Your task to perform on an android device: all mails in gmail Image 0: 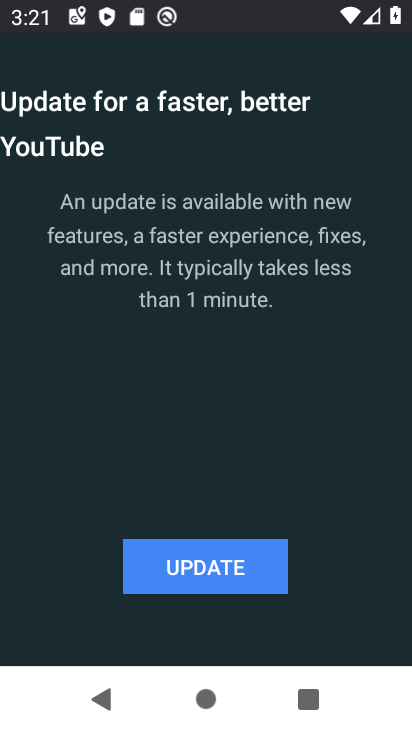
Step 0: press home button
Your task to perform on an android device: all mails in gmail Image 1: 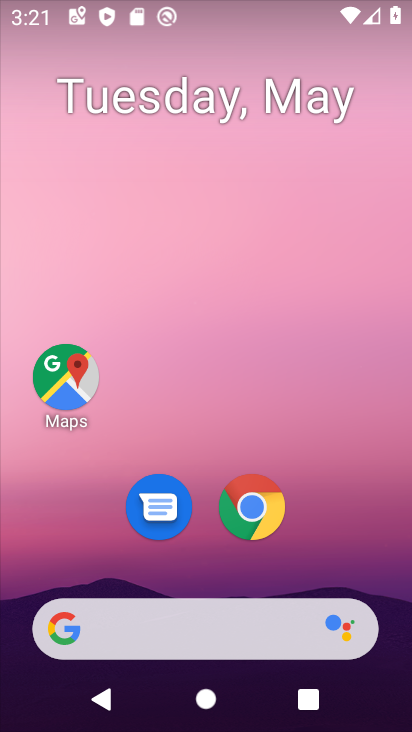
Step 1: drag from (220, 573) to (263, 0)
Your task to perform on an android device: all mails in gmail Image 2: 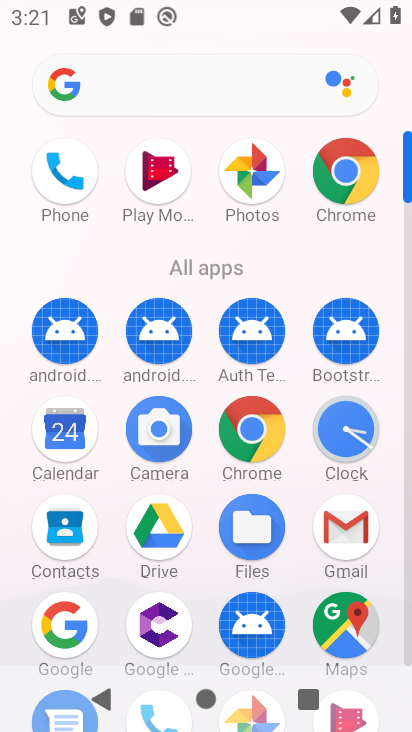
Step 2: click (340, 542)
Your task to perform on an android device: all mails in gmail Image 3: 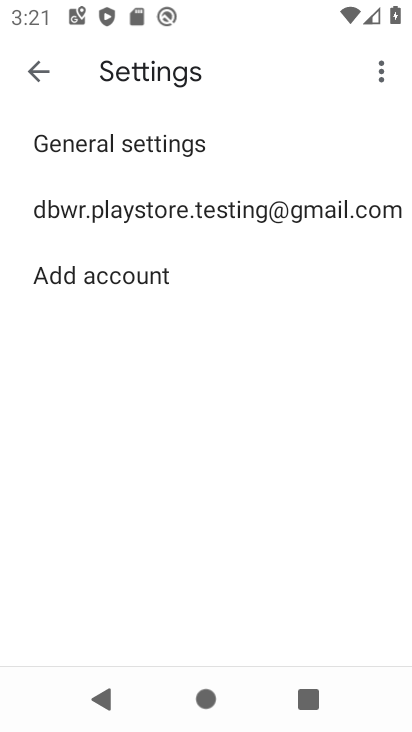
Step 3: click (14, 69)
Your task to perform on an android device: all mails in gmail Image 4: 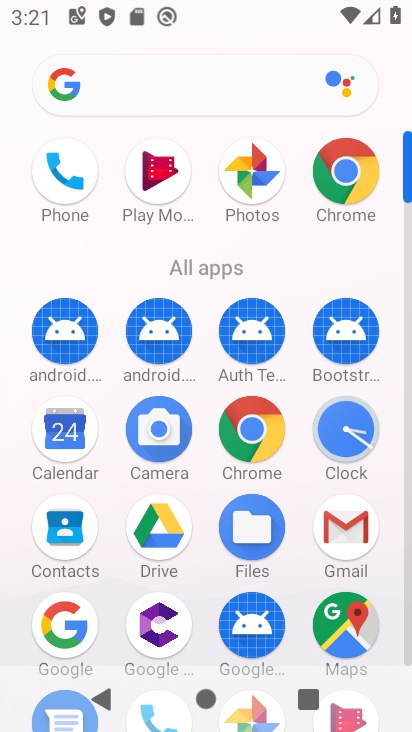
Step 4: click (346, 543)
Your task to perform on an android device: all mails in gmail Image 5: 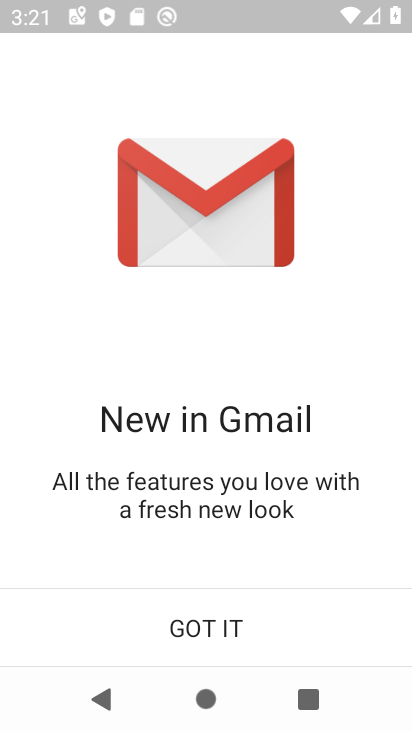
Step 5: click (204, 634)
Your task to perform on an android device: all mails in gmail Image 6: 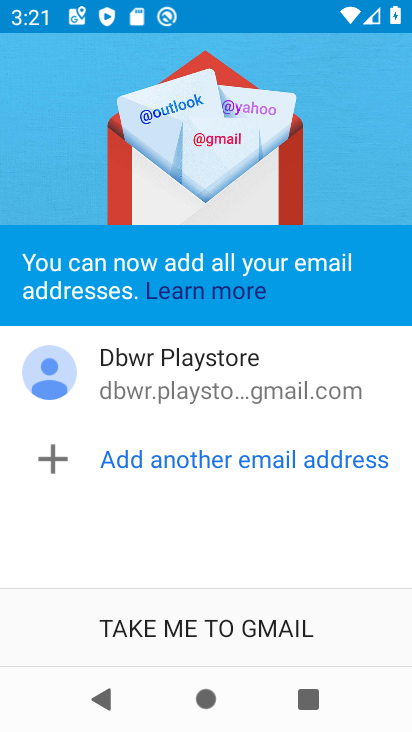
Step 6: click (206, 630)
Your task to perform on an android device: all mails in gmail Image 7: 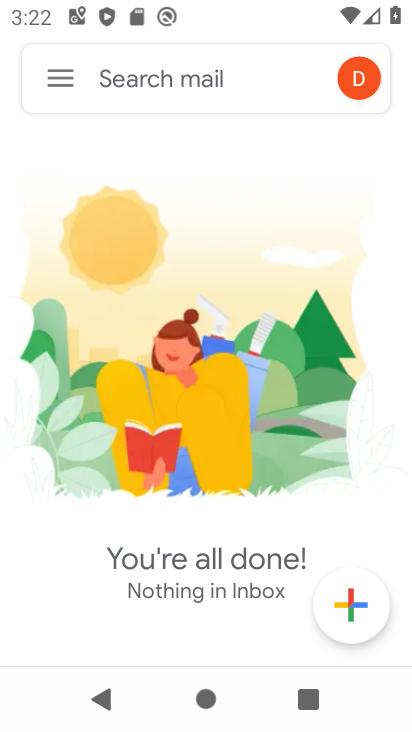
Step 7: click (69, 77)
Your task to perform on an android device: all mails in gmail Image 8: 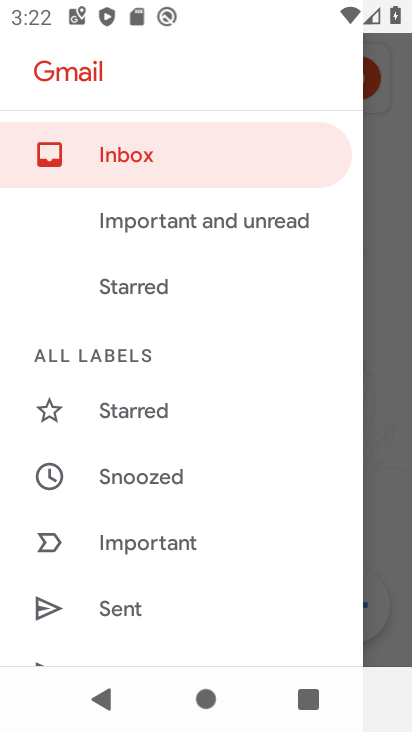
Step 8: drag from (191, 560) to (197, 250)
Your task to perform on an android device: all mails in gmail Image 9: 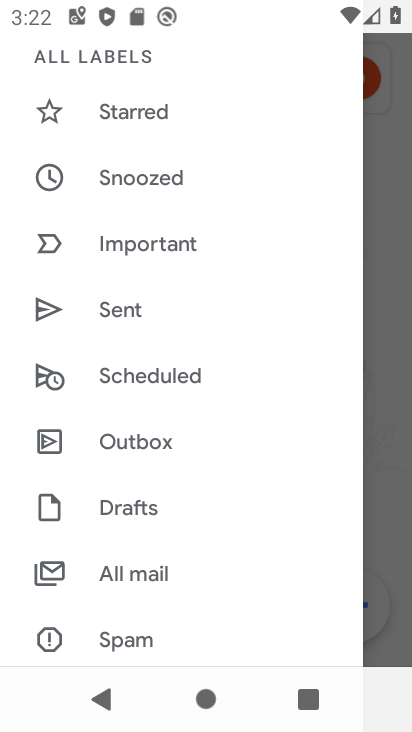
Step 9: click (123, 584)
Your task to perform on an android device: all mails in gmail Image 10: 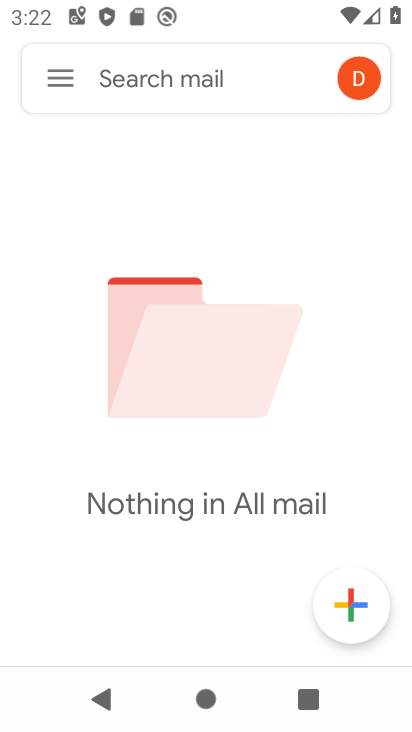
Step 10: task complete